Your task to perform on an android device: set default search engine in the chrome app Image 0: 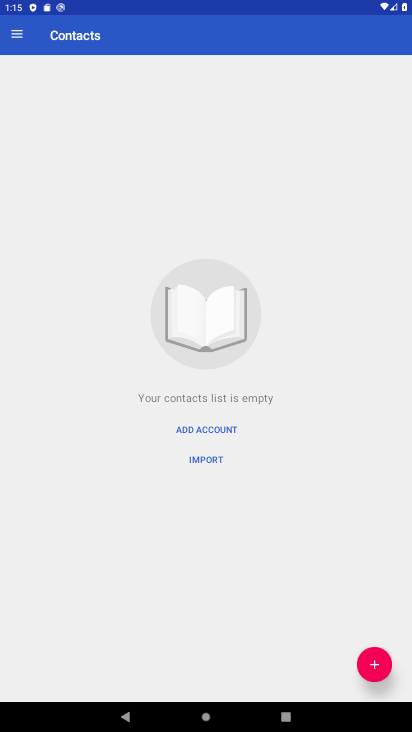
Step 0: press home button
Your task to perform on an android device: set default search engine in the chrome app Image 1: 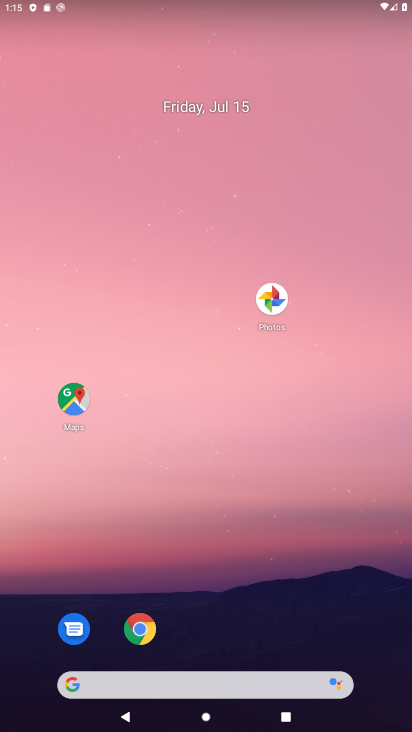
Step 1: drag from (188, 637) to (178, 270)
Your task to perform on an android device: set default search engine in the chrome app Image 2: 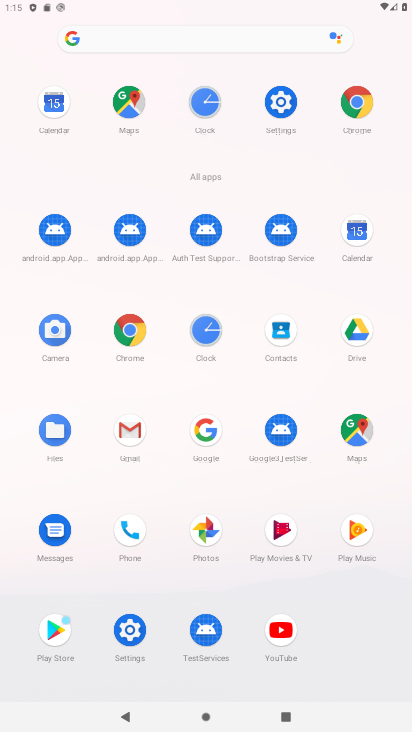
Step 2: click (128, 326)
Your task to perform on an android device: set default search engine in the chrome app Image 3: 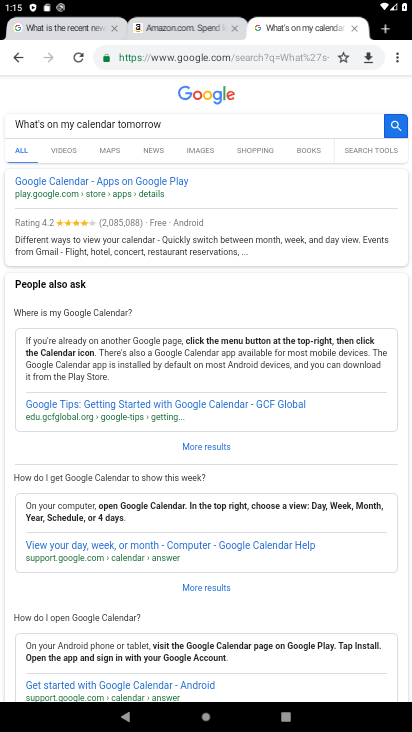
Step 3: click (402, 51)
Your task to perform on an android device: set default search engine in the chrome app Image 4: 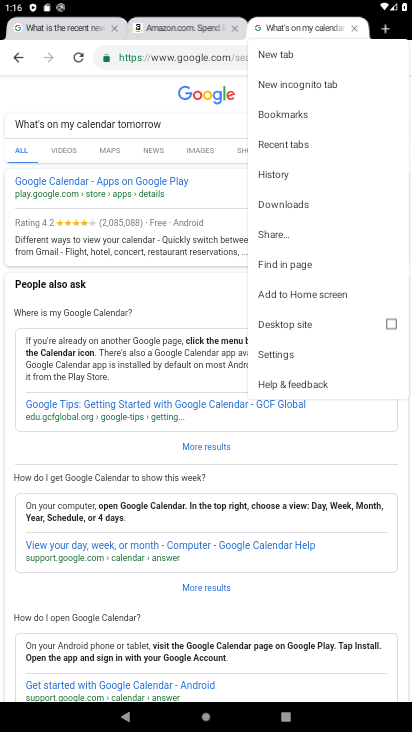
Step 4: click (292, 352)
Your task to perform on an android device: set default search engine in the chrome app Image 5: 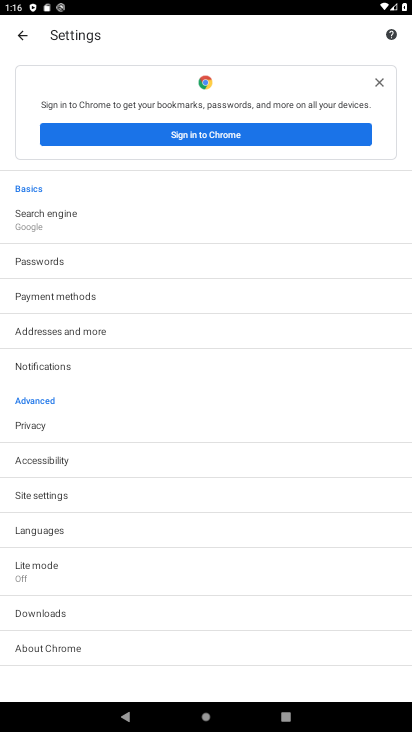
Step 5: click (55, 217)
Your task to perform on an android device: set default search engine in the chrome app Image 6: 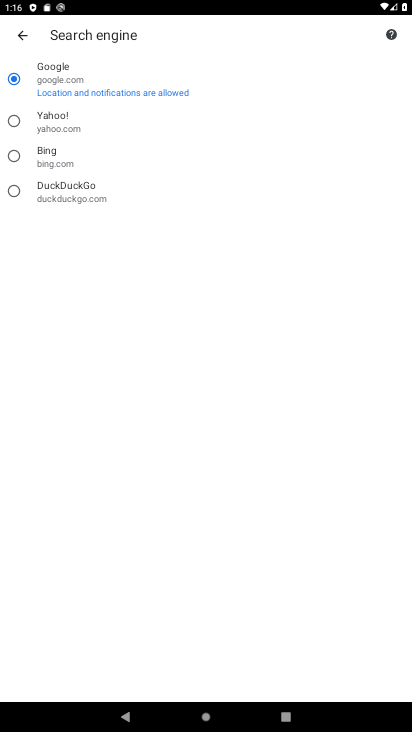
Step 6: task complete